Your task to perform on an android device: Find coffee shops on Maps Image 0: 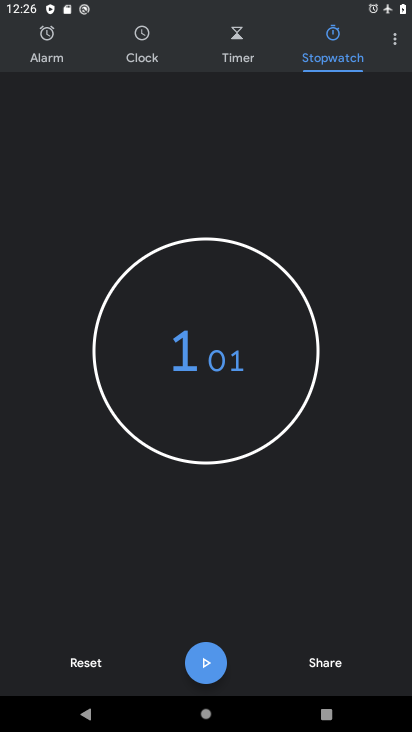
Step 0: press home button
Your task to perform on an android device: Find coffee shops on Maps Image 1: 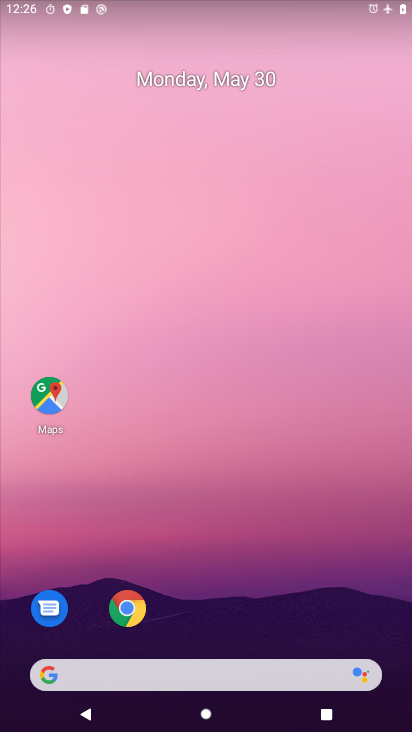
Step 1: click (43, 396)
Your task to perform on an android device: Find coffee shops on Maps Image 2: 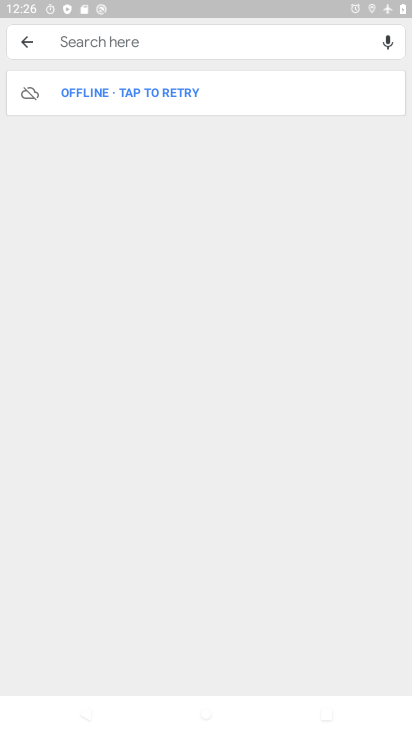
Step 2: click (37, 41)
Your task to perform on an android device: Find coffee shops on Maps Image 3: 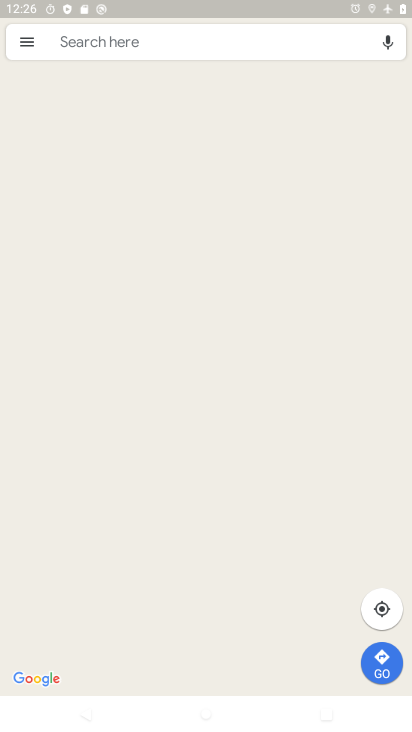
Step 3: click (189, 20)
Your task to perform on an android device: Find coffee shops on Maps Image 4: 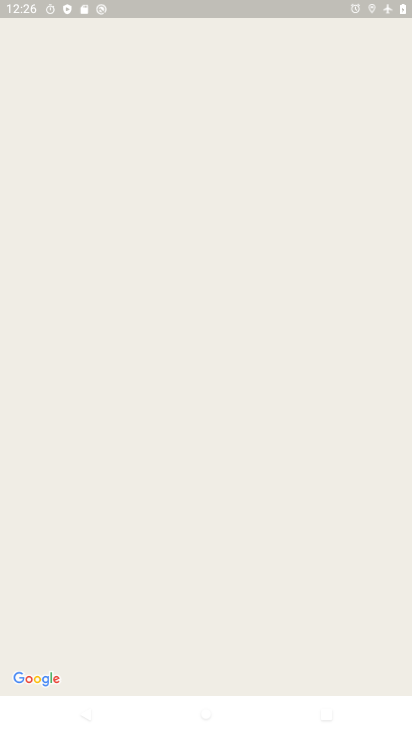
Step 4: task complete